Your task to perform on an android device: change the clock display to show seconds Image 0: 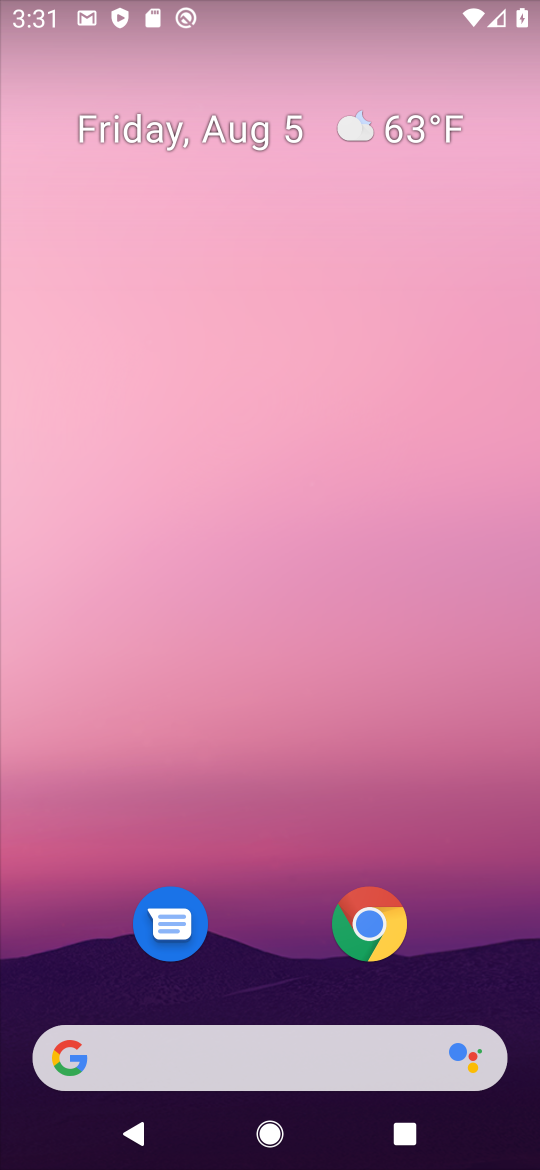
Step 0: drag from (317, 953) to (332, 184)
Your task to perform on an android device: change the clock display to show seconds Image 1: 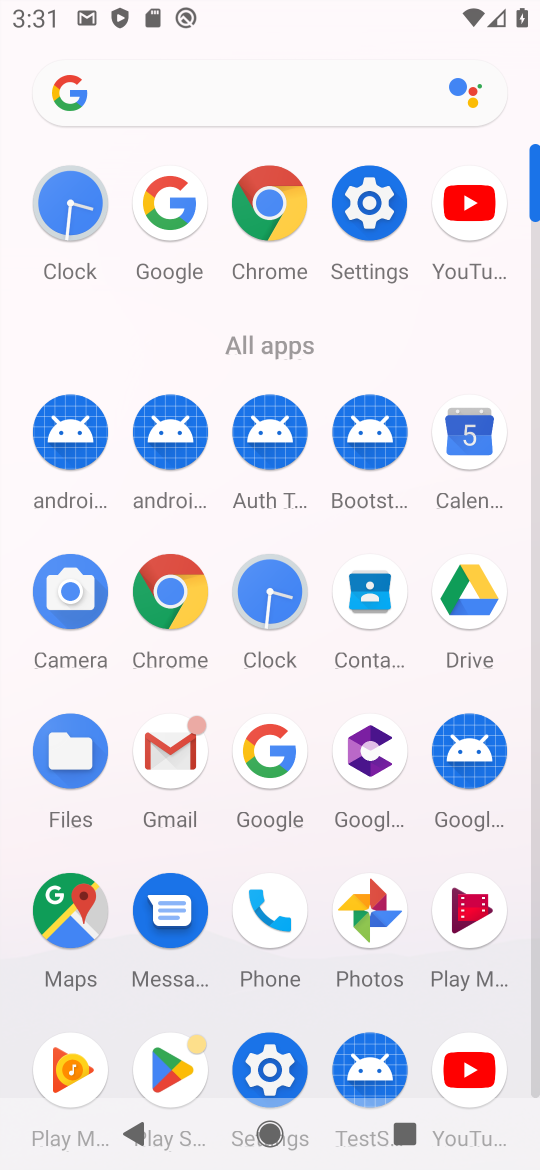
Step 1: click (288, 588)
Your task to perform on an android device: change the clock display to show seconds Image 2: 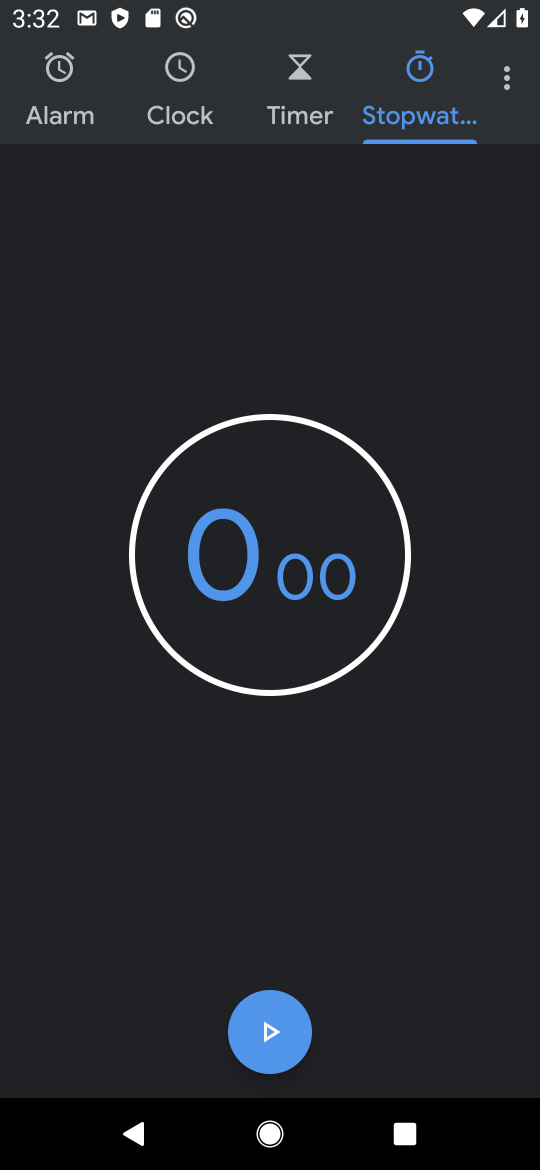
Step 2: click (510, 88)
Your task to perform on an android device: change the clock display to show seconds Image 3: 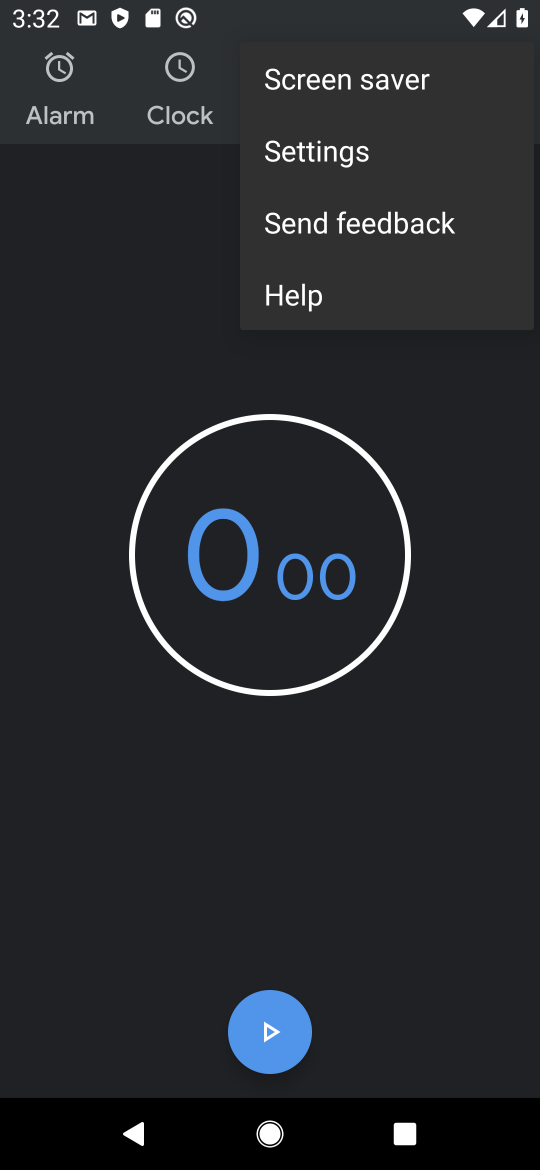
Step 3: click (368, 159)
Your task to perform on an android device: change the clock display to show seconds Image 4: 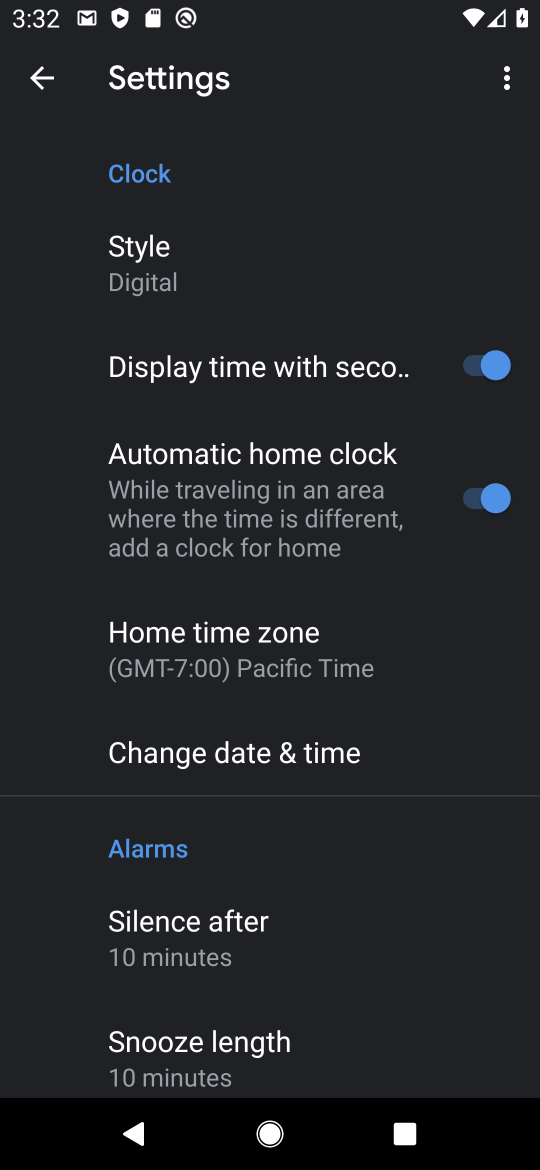
Step 4: task complete